Your task to perform on an android device: check google app version Image 0: 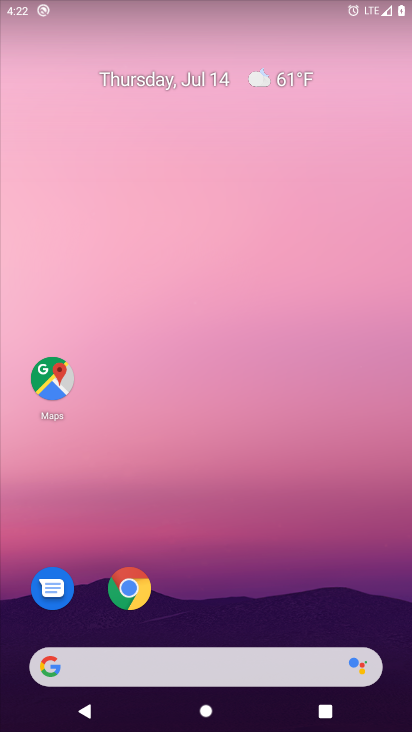
Step 0: press home button
Your task to perform on an android device: check google app version Image 1: 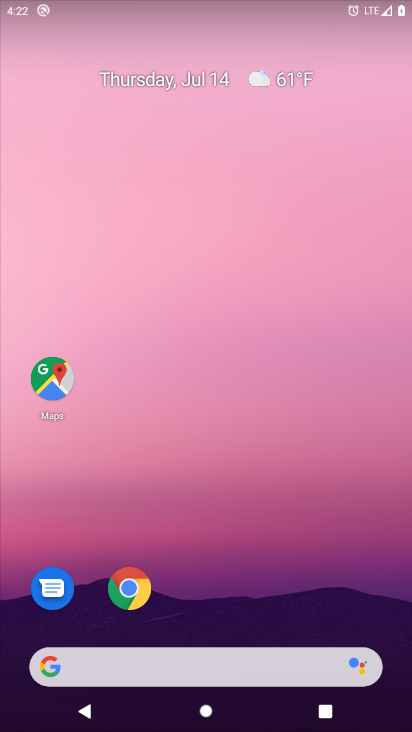
Step 1: drag from (196, 630) to (209, 48)
Your task to perform on an android device: check google app version Image 2: 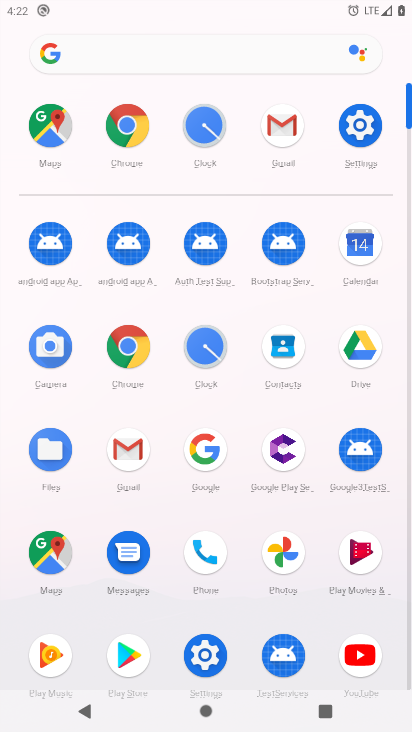
Step 2: click (204, 452)
Your task to perform on an android device: check google app version Image 3: 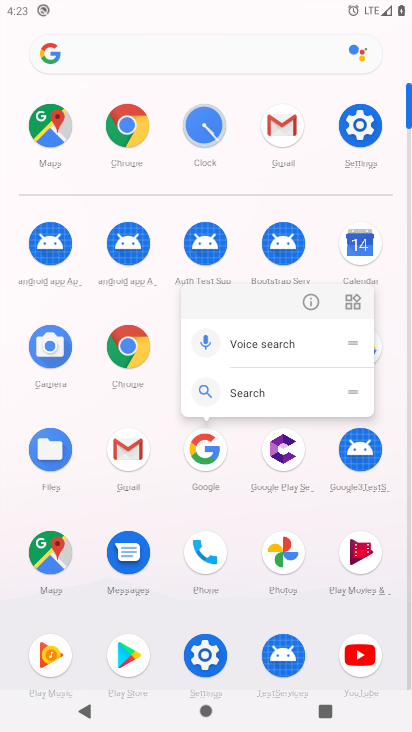
Step 3: click (313, 298)
Your task to perform on an android device: check google app version Image 4: 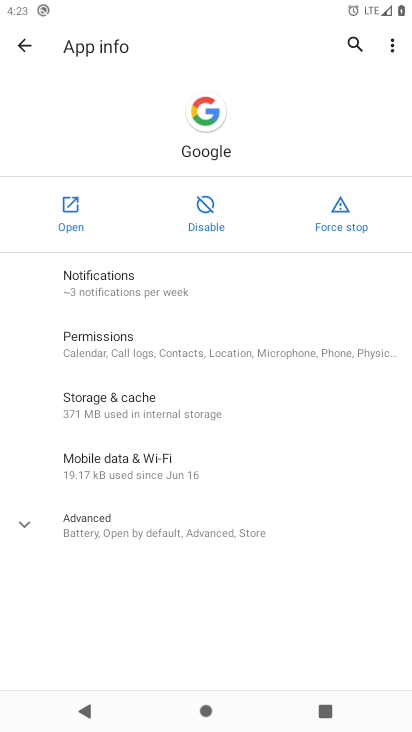
Step 4: click (87, 518)
Your task to perform on an android device: check google app version Image 5: 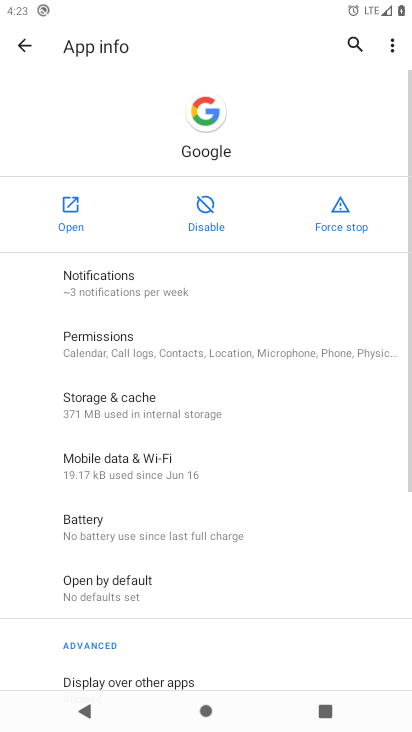
Step 5: task complete